Your task to perform on an android device: Open settings on Google Maps Image 0: 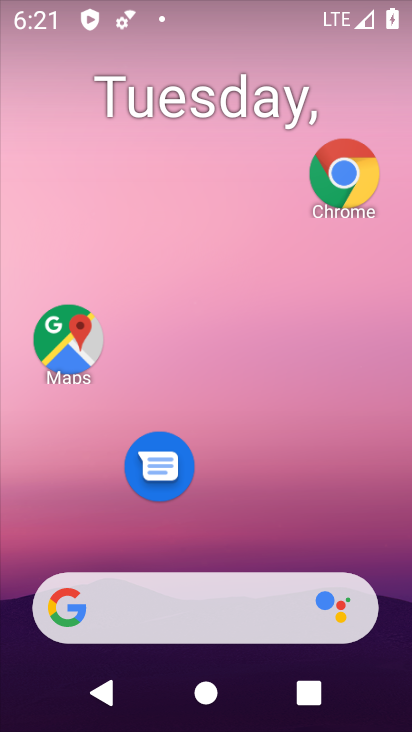
Step 0: press home button
Your task to perform on an android device: Open settings on Google Maps Image 1: 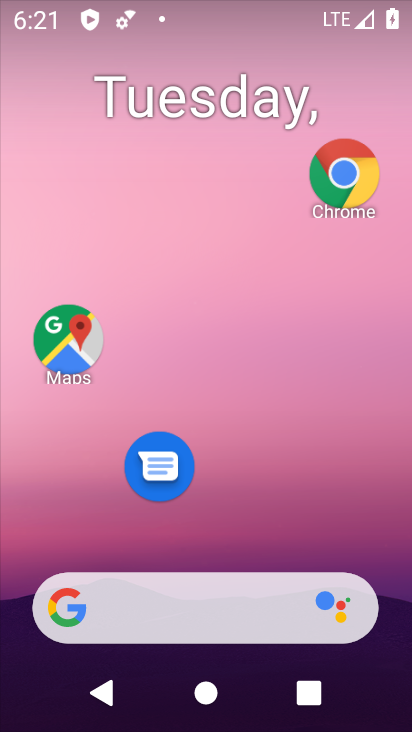
Step 1: drag from (408, 622) to (339, 261)
Your task to perform on an android device: Open settings on Google Maps Image 2: 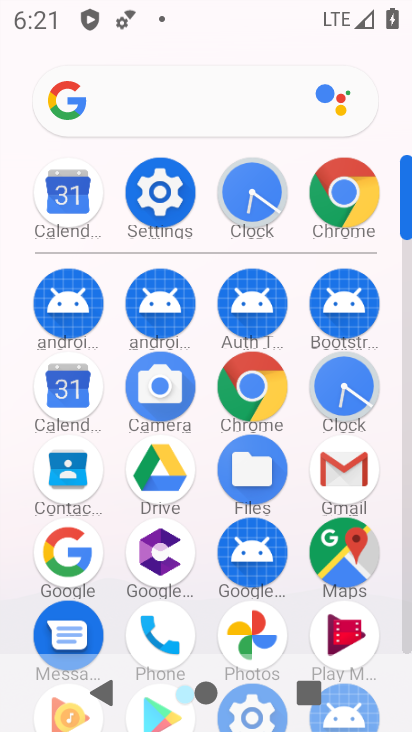
Step 2: click (146, 187)
Your task to perform on an android device: Open settings on Google Maps Image 3: 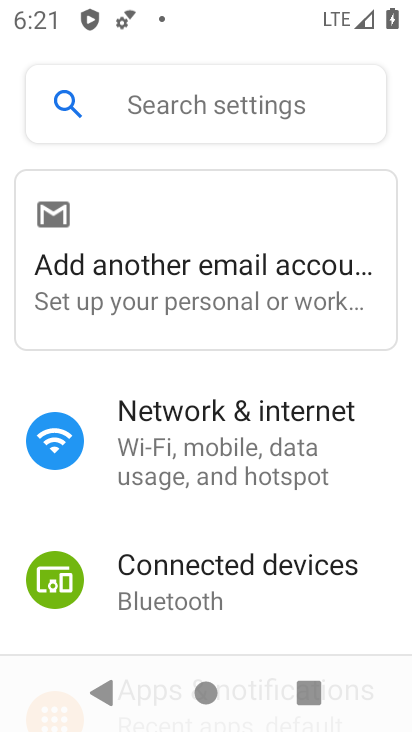
Step 3: press home button
Your task to perform on an android device: Open settings on Google Maps Image 4: 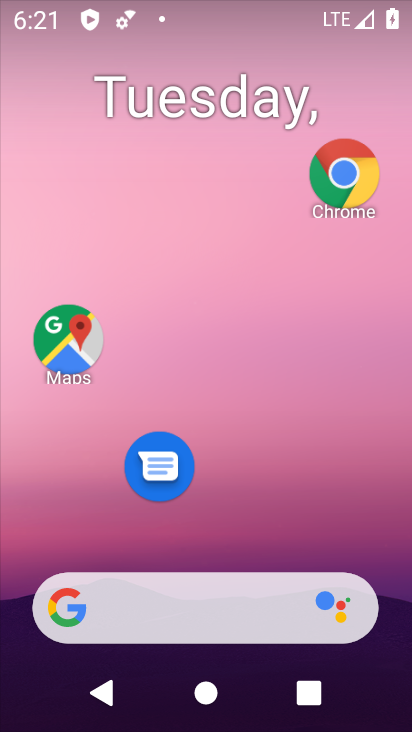
Step 4: drag from (391, 590) to (297, 110)
Your task to perform on an android device: Open settings on Google Maps Image 5: 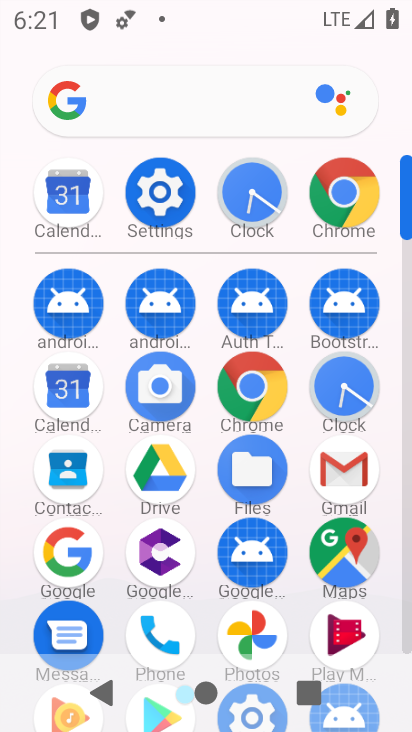
Step 5: click (340, 559)
Your task to perform on an android device: Open settings on Google Maps Image 6: 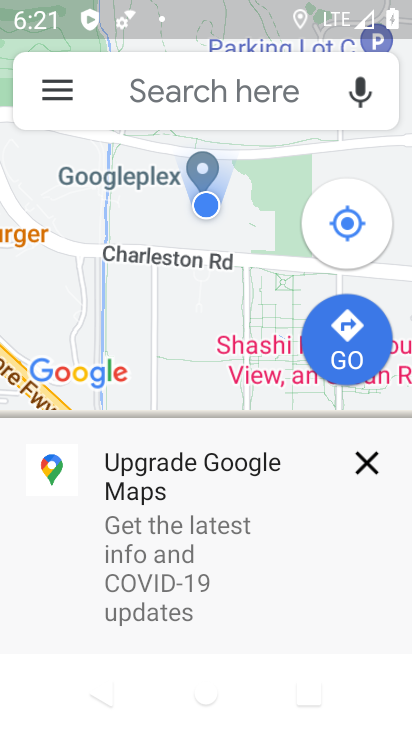
Step 6: click (69, 91)
Your task to perform on an android device: Open settings on Google Maps Image 7: 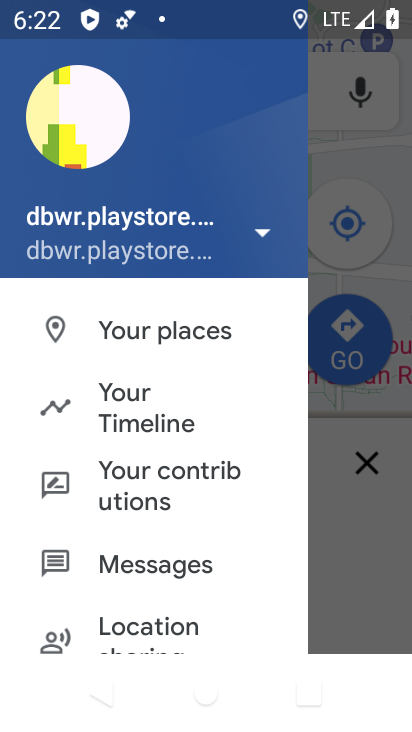
Step 7: drag from (205, 621) to (129, 280)
Your task to perform on an android device: Open settings on Google Maps Image 8: 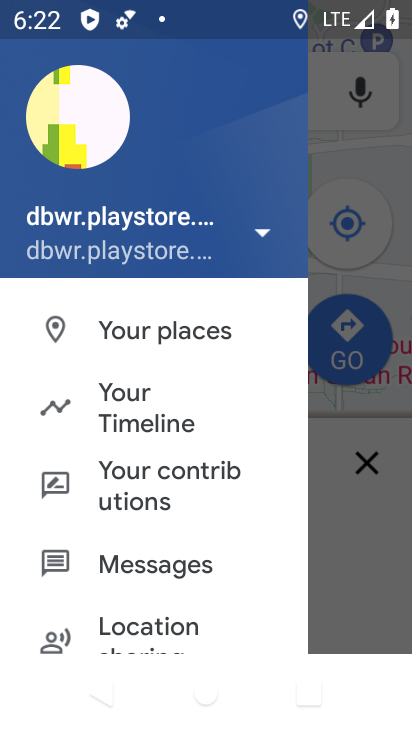
Step 8: drag from (112, 542) to (140, 261)
Your task to perform on an android device: Open settings on Google Maps Image 9: 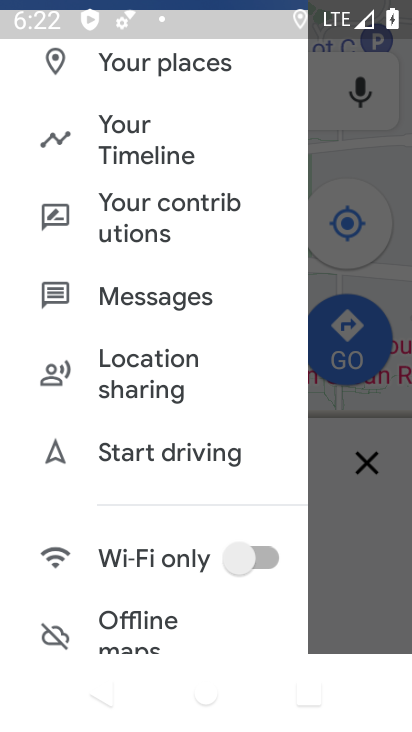
Step 9: drag from (126, 553) to (132, 107)
Your task to perform on an android device: Open settings on Google Maps Image 10: 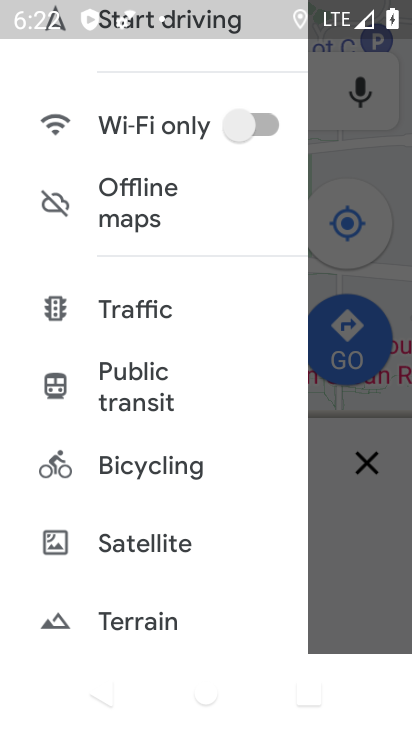
Step 10: drag from (176, 581) to (161, 77)
Your task to perform on an android device: Open settings on Google Maps Image 11: 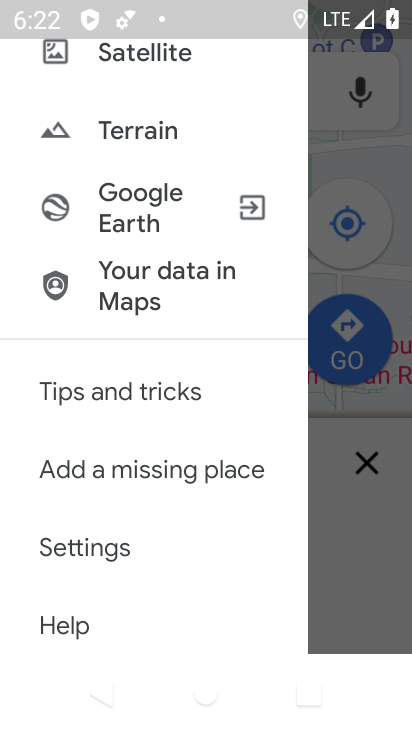
Step 11: click (84, 557)
Your task to perform on an android device: Open settings on Google Maps Image 12: 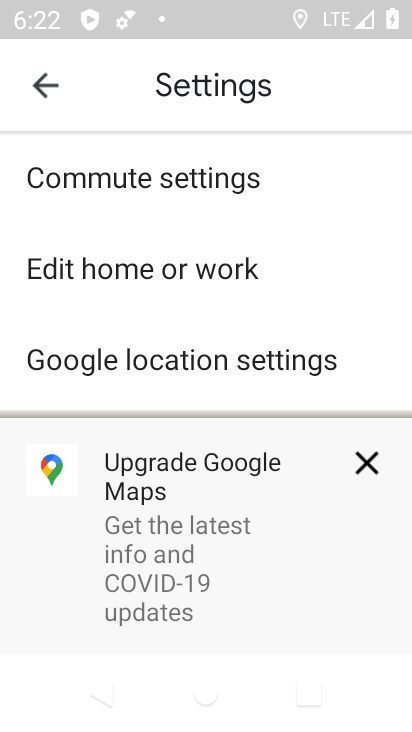
Step 12: click (373, 454)
Your task to perform on an android device: Open settings on Google Maps Image 13: 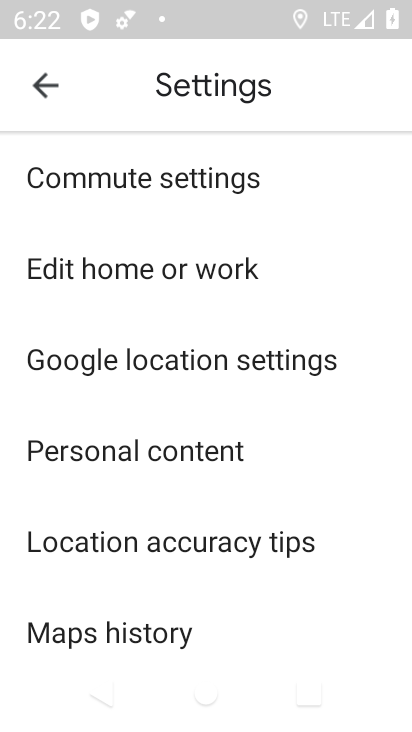
Step 13: task complete